Your task to perform on an android device: find snoozed emails in the gmail app Image 0: 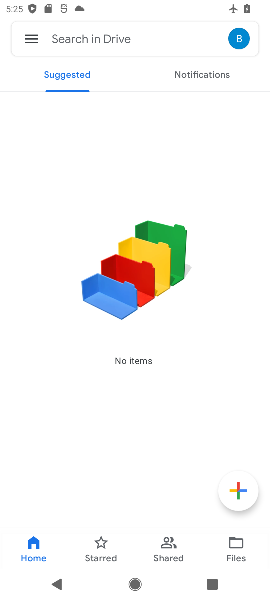
Step 0: press home button
Your task to perform on an android device: find snoozed emails in the gmail app Image 1: 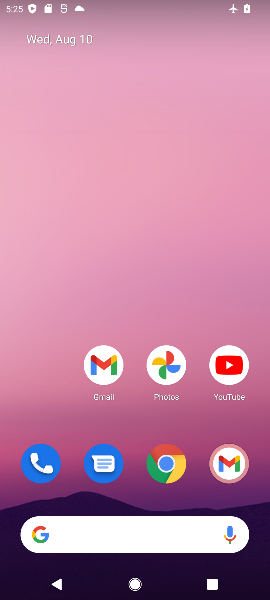
Step 1: click (103, 363)
Your task to perform on an android device: find snoozed emails in the gmail app Image 2: 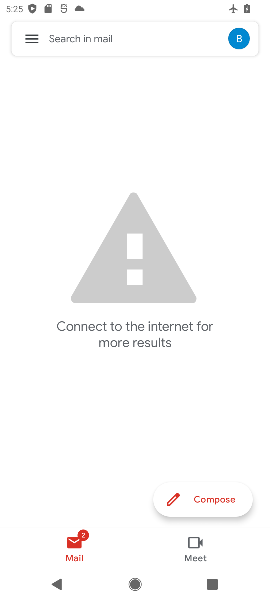
Step 2: click (31, 33)
Your task to perform on an android device: find snoozed emails in the gmail app Image 3: 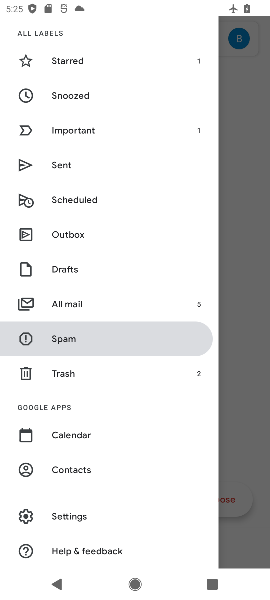
Step 3: click (72, 93)
Your task to perform on an android device: find snoozed emails in the gmail app Image 4: 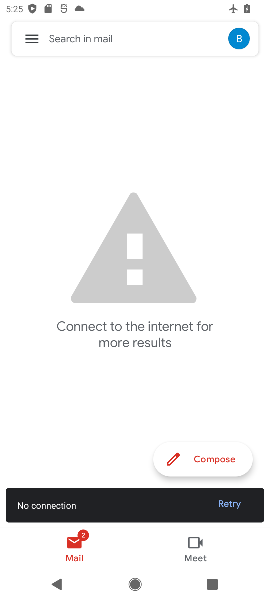
Step 4: click (33, 33)
Your task to perform on an android device: find snoozed emails in the gmail app Image 5: 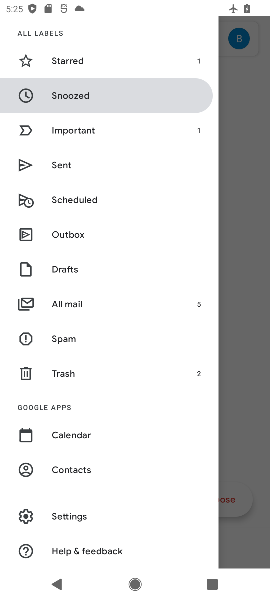
Step 5: click (75, 93)
Your task to perform on an android device: find snoozed emails in the gmail app Image 6: 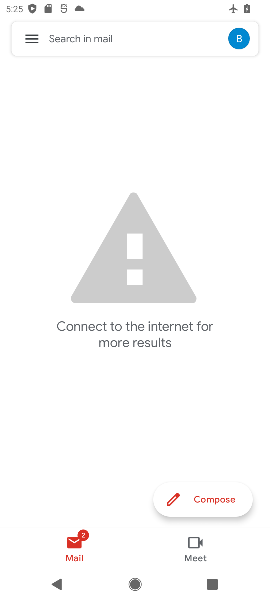
Step 6: task complete